Your task to perform on an android device: Search for "acer nitro" on walmart, select the first entry, and add it to the cart. Image 0: 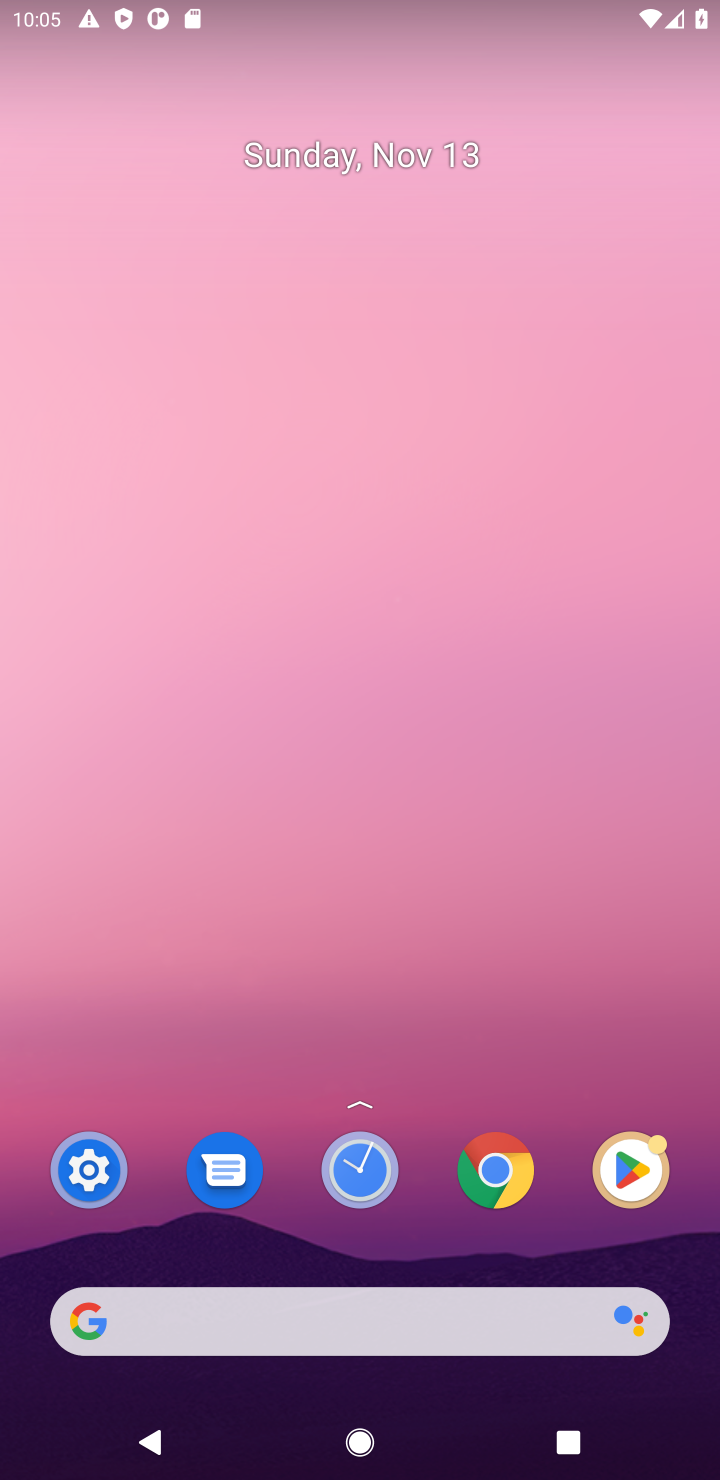
Step 0: click (387, 1312)
Your task to perform on an android device: Search for "acer nitro" on walmart, select the first entry, and add it to the cart. Image 1: 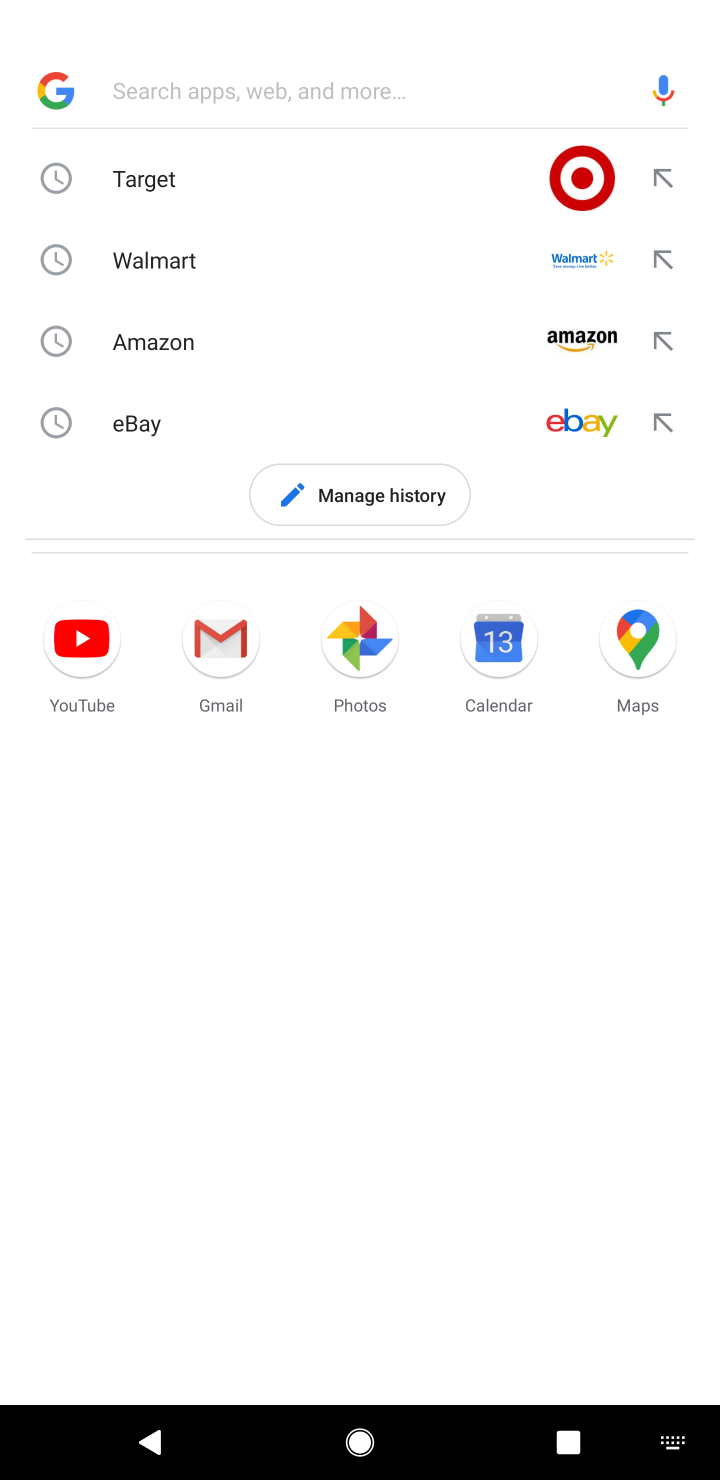
Step 1: type "walmart.com"
Your task to perform on an android device: Search for "acer nitro" on walmart, select the first entry, and add it to the cart. Image 2: 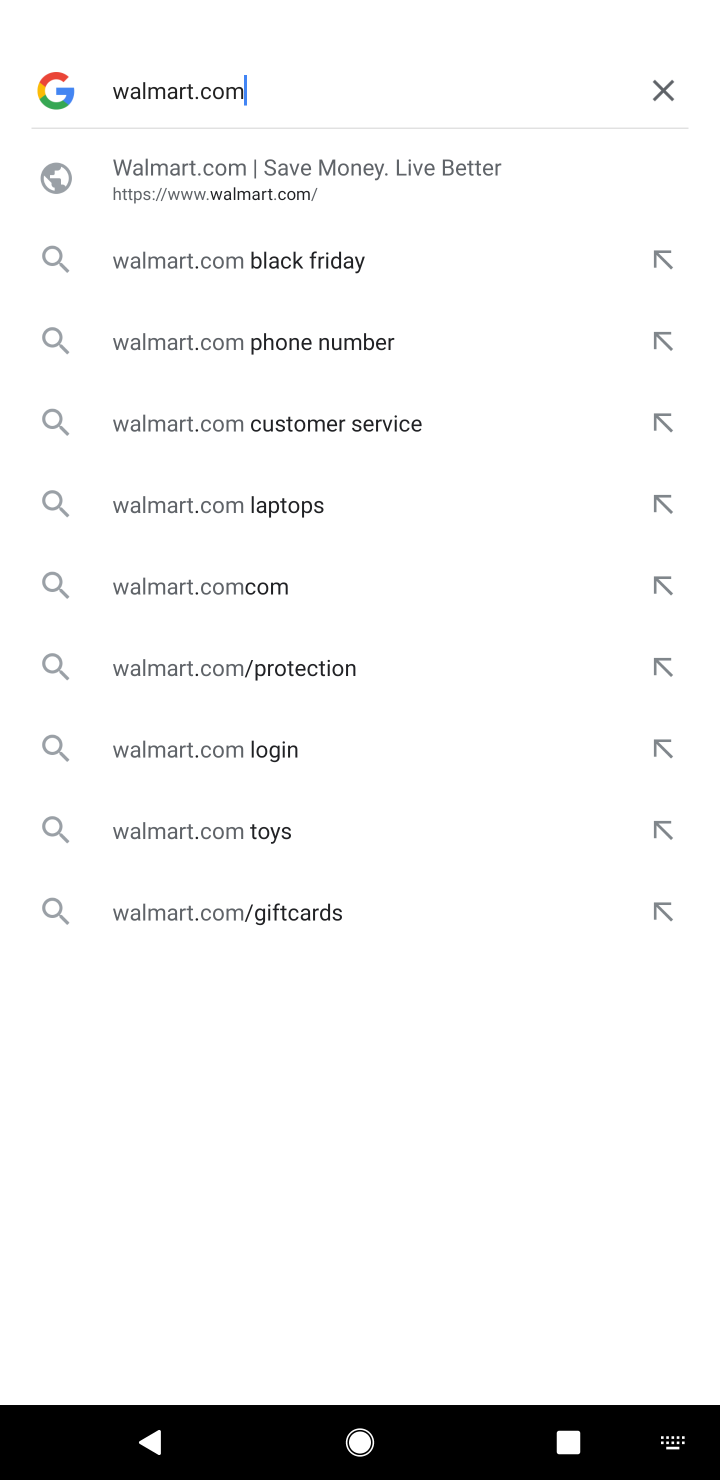
Step 2: click (321, 188)
Your task to perform on an android device: Search for "acer nitro" on walmart, select the first entry, and add it to the cart. Image 3: 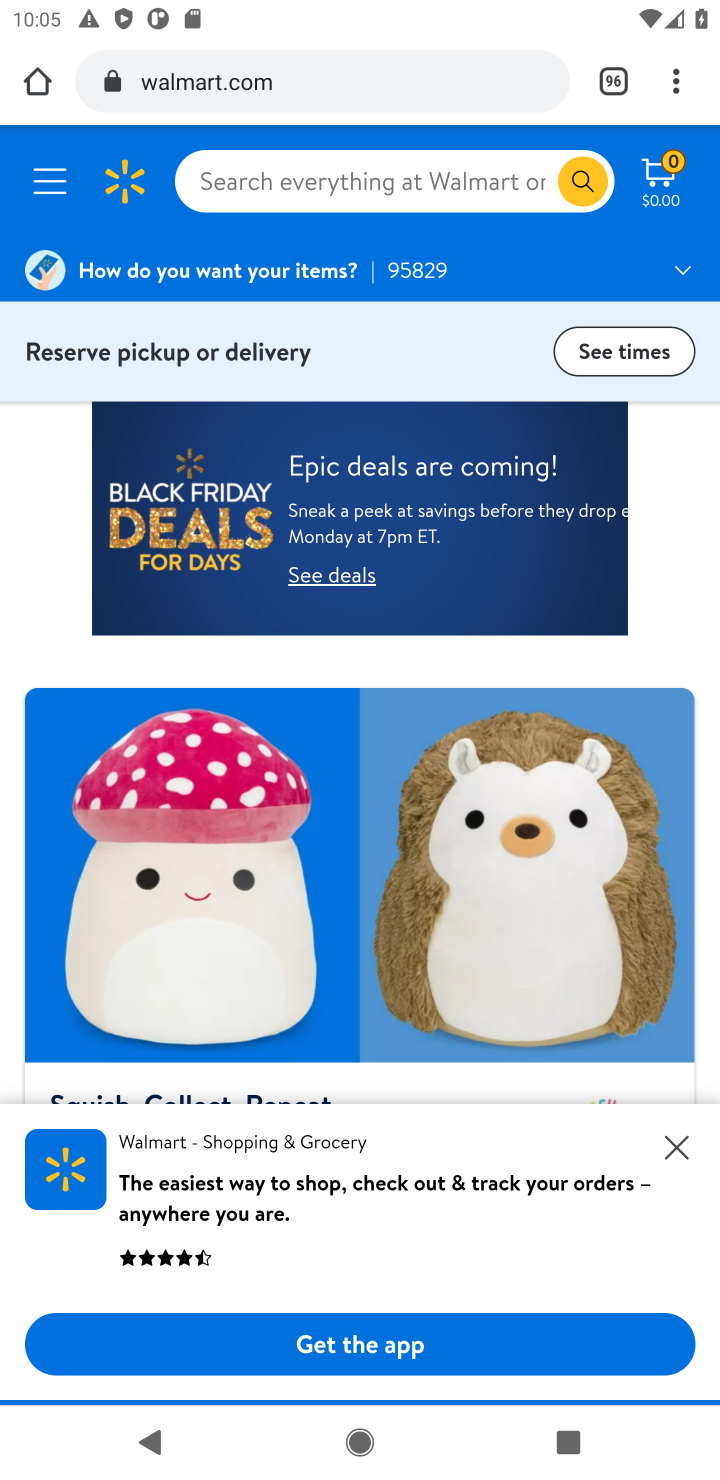
Step 3: task complete